Your task to perform on an android device: Search for vegetarian restaurants on Maps Image 0: 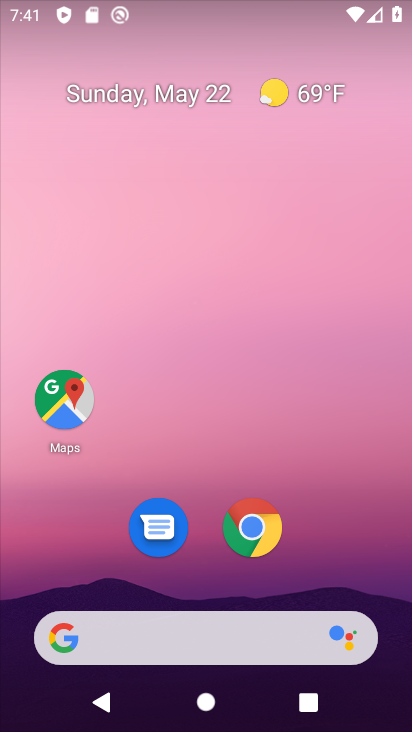
Step 0: drag from (195, 584) to (228, 166)
Your task to perform on an android device: Search for vegetarian restaurants on Maps Image 1: 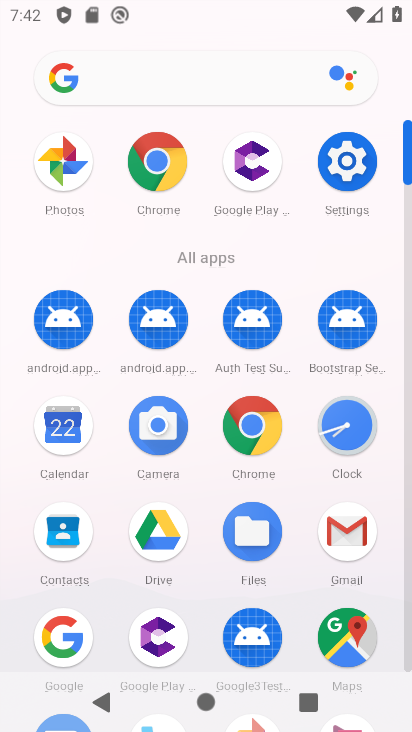
Step 1: click (344, 633)
Your task to perform on an android device: Search for vegetarian restaurants on Maps Image 2: 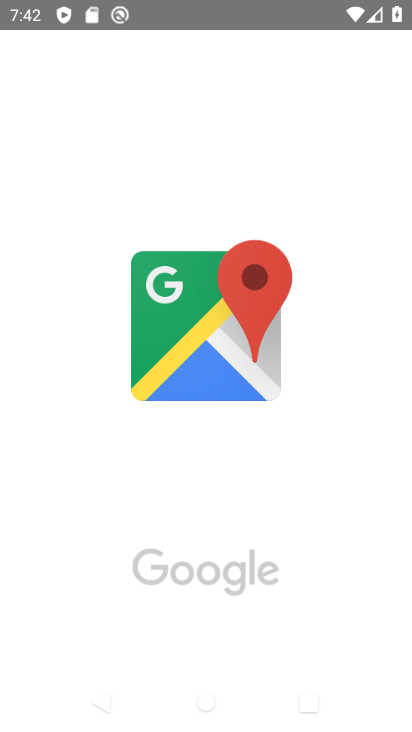
Step 2: task complete